Your task to perform on an android device: Turn on the flashlight Image 0: 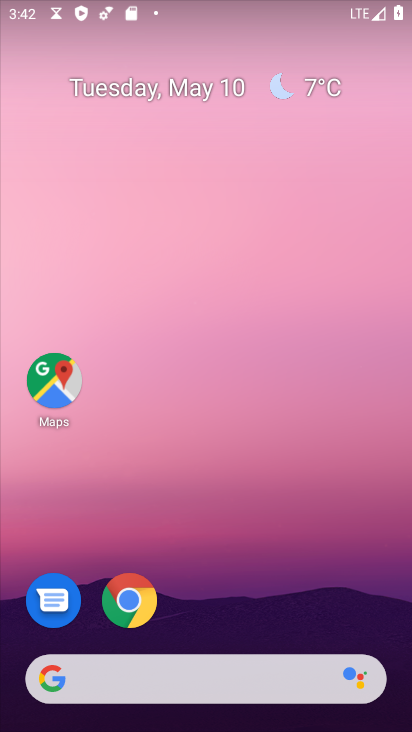
Step 0: drag from (290, 534) to (349, 233)
Your task to perform on an android device: Turn on the flashlight Image 1: 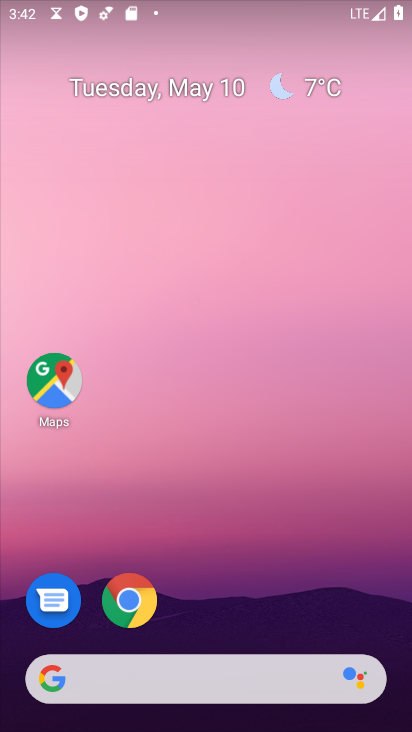
Step 1: drag from (309, 583) to (396, 99)
Your task to perform on an android device: Turn on the flashlight Image 2: 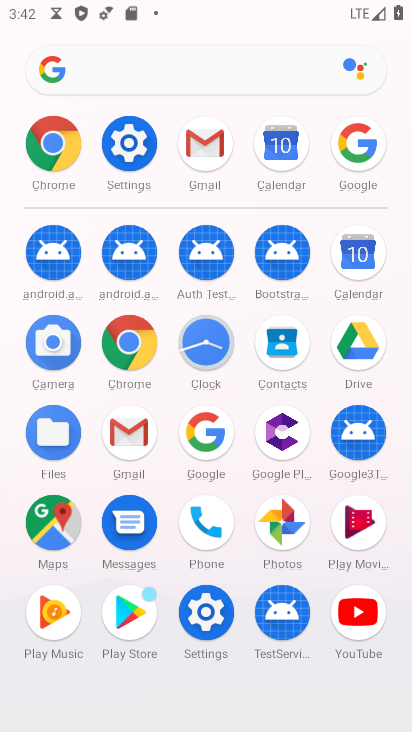
Step 2: click (137, 142)
Your task to perform on an android device: Turn on the flashlight Image 3: 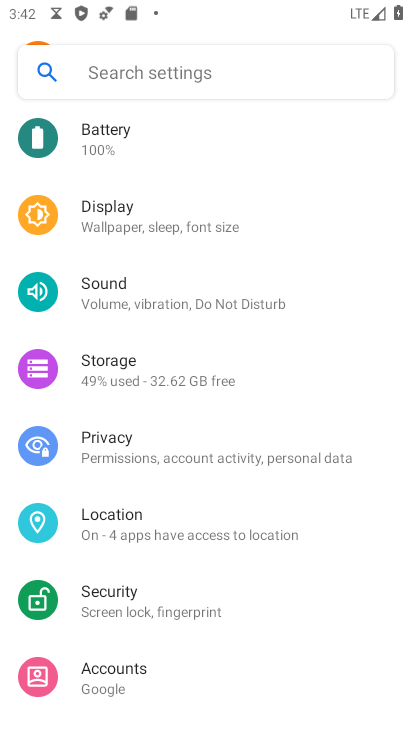
Step 3: drag from (139, 144) to (153, 558)
Your task to perform on an android device: Turn on the flashlight Image 4: 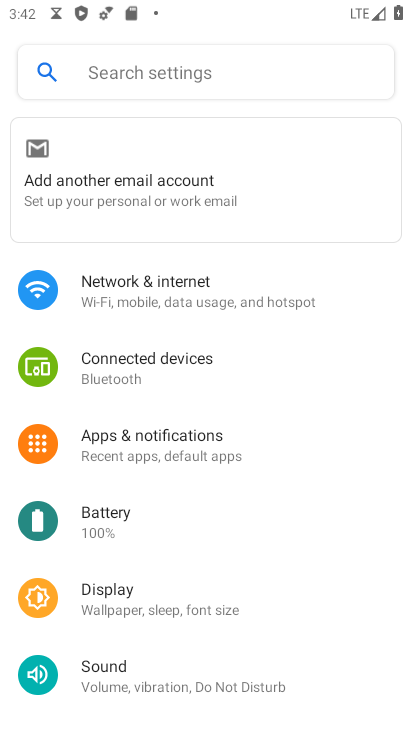
Step 4: drag from (206, 649) to (262, 158)
Your task to perform on an android device: Turn on the flashlight Image 5: 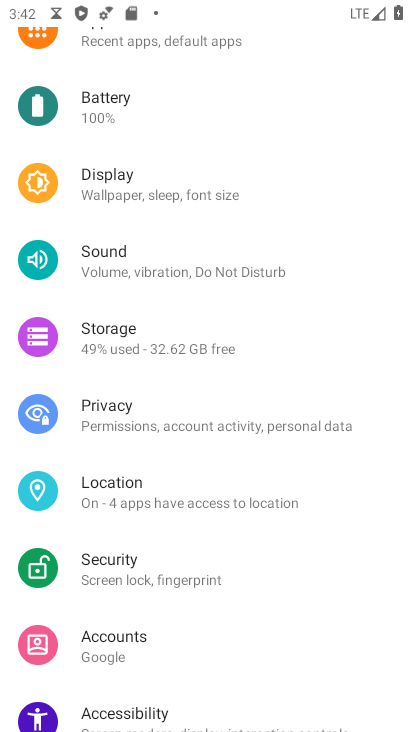
Step 5: drag from (191, 572) to (352, 13)
Your task to perform on an android device: Turn on the flashlight Image 6: 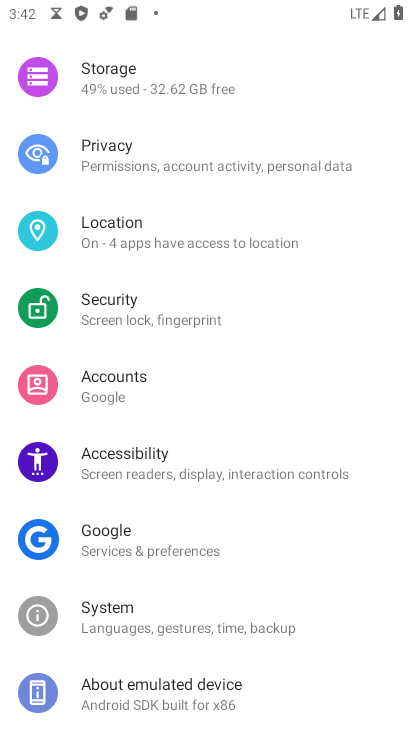
Step 6: drag from (154, 534) to (191, 242)
Your task to perform on an android device: Turn on the flashlight Image 7: 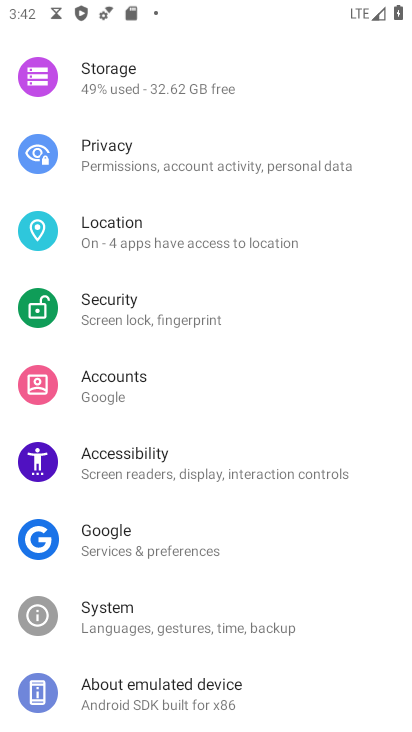
Step 7: drag from (266, 576) to (320, 154)
Your task to perform on an android device: Turn on the flashlight Image 8: 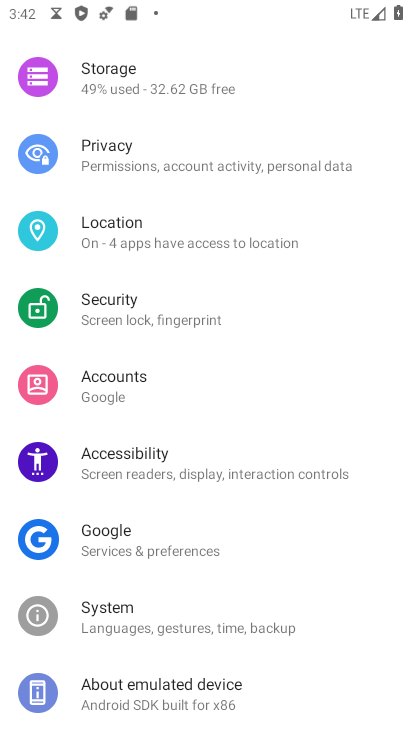
Step 8: drag from (243, 275) to (251, 526)
Your task to perform on an android device: Turn on the flashlight Image 9: 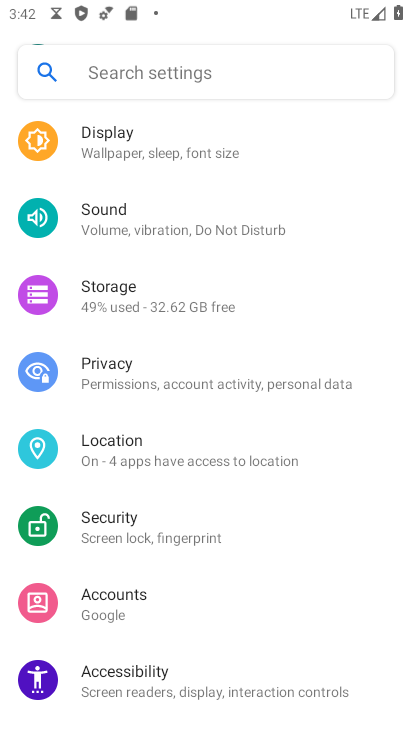
Step 9: drag from (326, 212) to (265, 516)
Your task to perform on an android device: Turn on the flashlight Image 10: 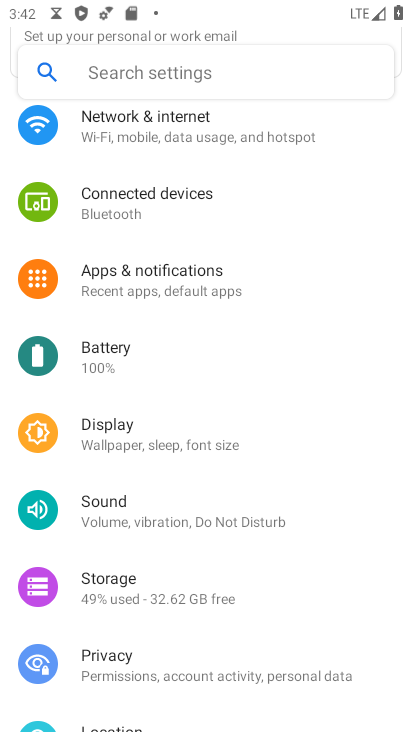
Step 10: drag from (221, 634) to (410, 142)
Your task to perform on an android device: Turn on the flashlight Image 11: 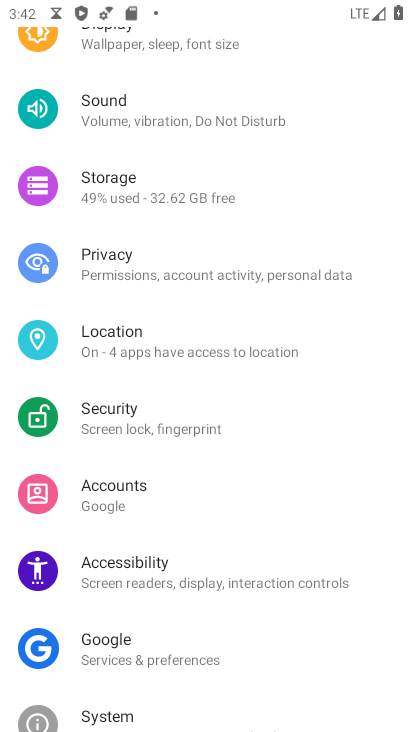
Step 11: drag from (250, 483) to (343, 230)
Your task to perform on an android device: Turn on the flashlight Image 12: 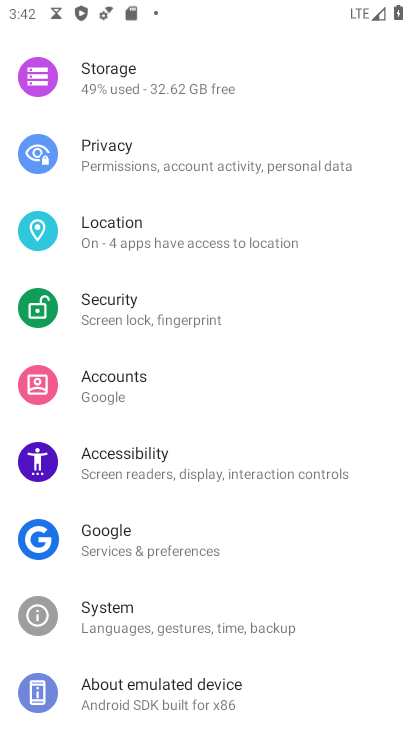
Step 12: drag from (268, 493) to (325, 238)
Your task to perform on an android device: Turn on the flashlight Image 13: 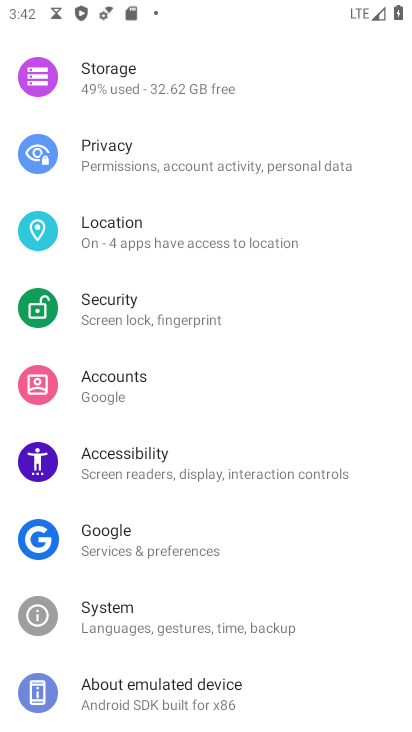
Step 13: drag from (219, 111) to (162, 491)
Your task to perform on an android device: Turn on the flashlight Image 14: 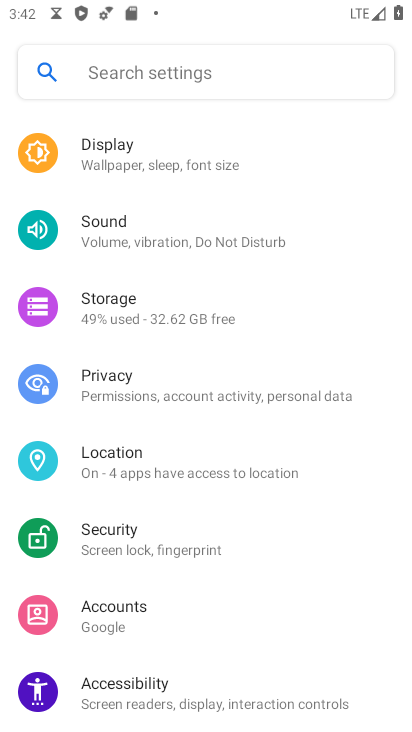
Step 14: drag from (251, 200) to (171, 557)
Your task to perform on an android device: Turn on the flashlight Image 15: 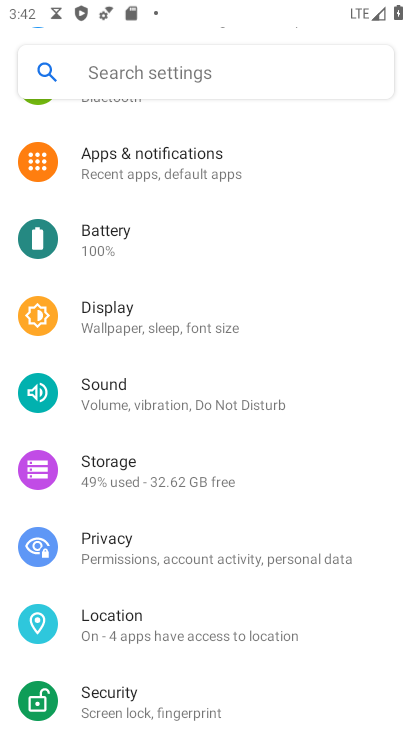
Step 15: drag from (232, 192) to (181, 580)
Your task to perform on an android device: Turn on the flashlight Image 16: 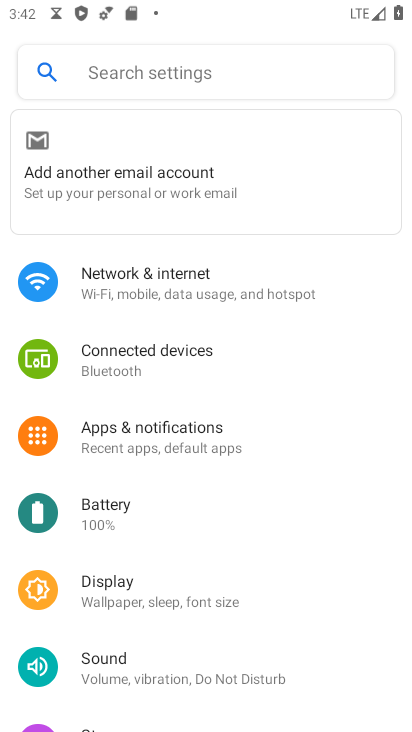
Step 16: click (226, 431)
Your task to perform on an android device: Turn on the flashlight Image 17: 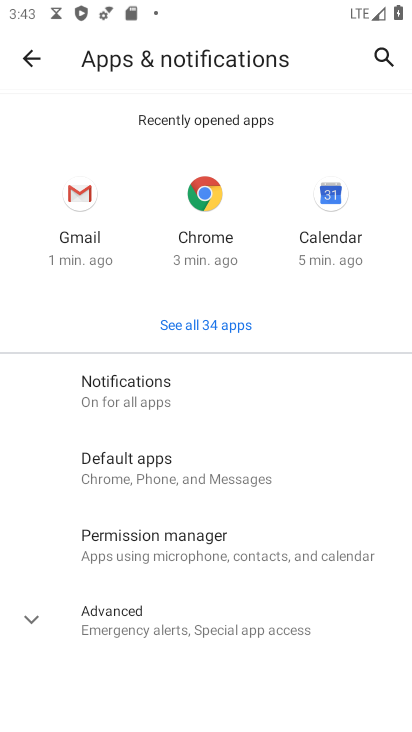
Step 17: task complete